Your task to perform on an android device: change notification settings in the gmail app Image 0: 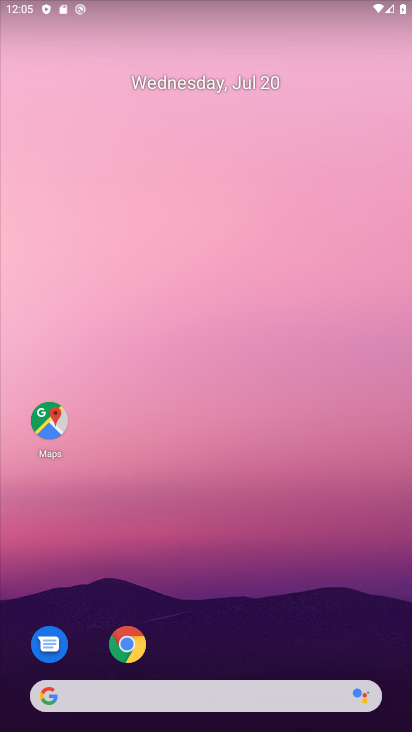
Step 0: drag from (271, 620) to (300, 32)
Your task to perform on an android device: change notification settings in the gmail app Image 1: 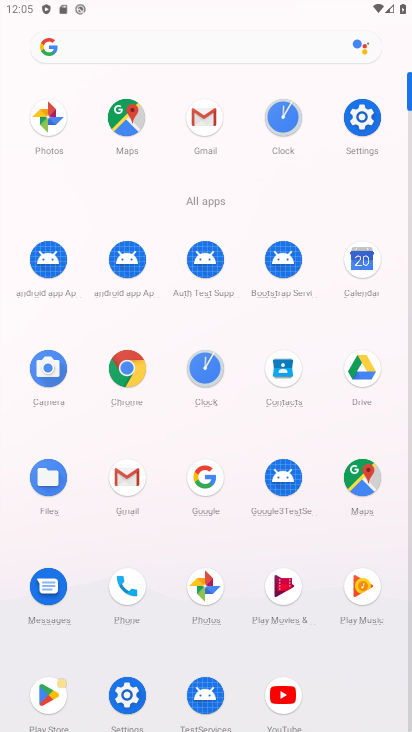
Step 1: click (196, 119)
Your task to perform on an android device: change notification settings in the gmail app Image 2: 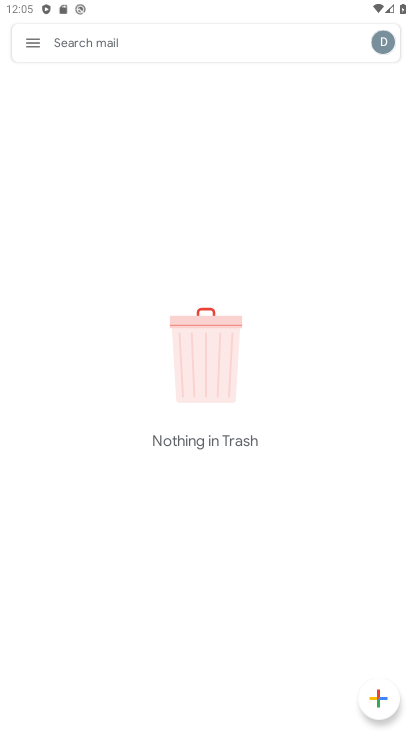
Step 2: click (24, 50)
Your task to perform on an android device: change notification settings in the gmail app Image 3: 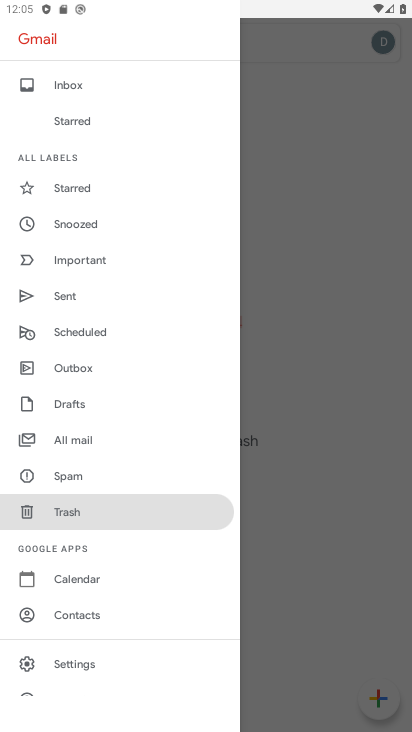
Step 3: click (94, 671)
Your task to perform on an android device: change notification settings in the gmail app Image 4: 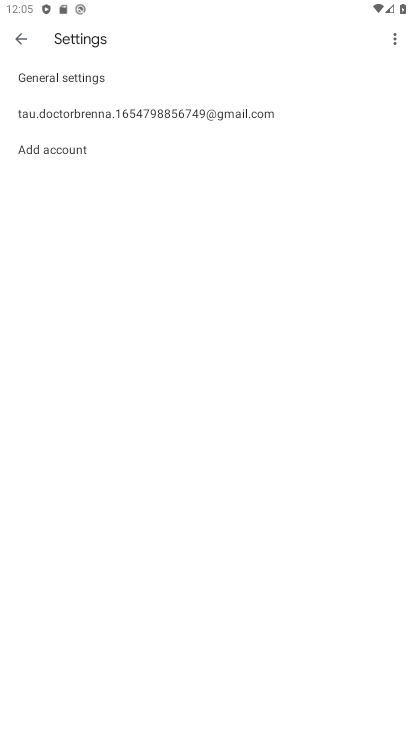
Step 4: click (252, 114)
Your task to perform on an android device: change notification settings in the gmail app Image 5: 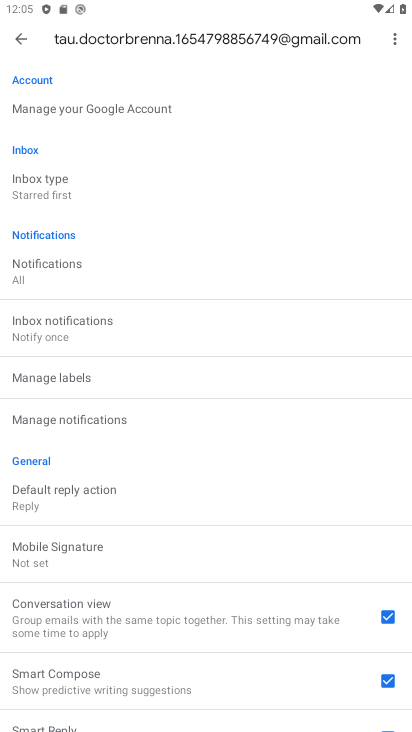
Step 5: click (167, 424)
Your task to perform on an android device: change notification settings in the gmail app Image 6: 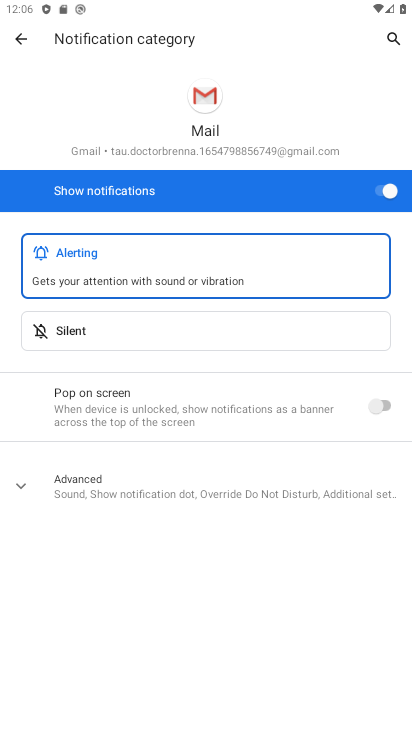
Step 6: click (382, 196)
Your task to perform on an android device: change notification settings in the gmail app Image 7: 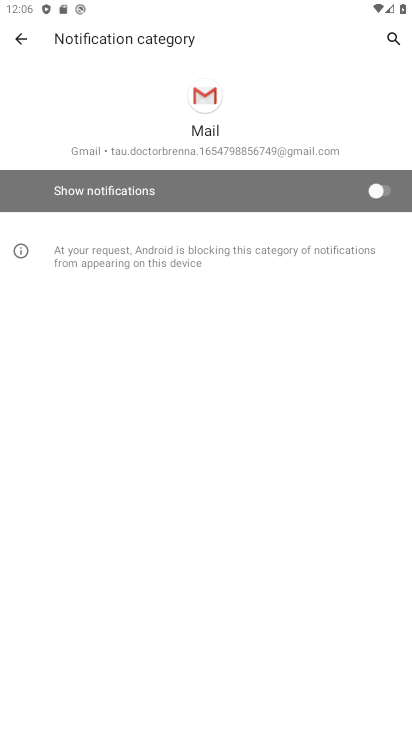
Step 7: task complete